Your task to perform on an android device: Turn off the flashlight Image 0: 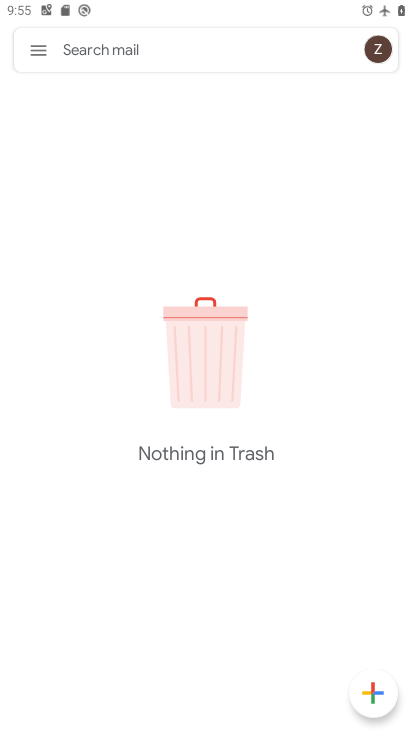
Step 0: press home button
Your task to perform on an android device: Turn off the flashlight Image 1: 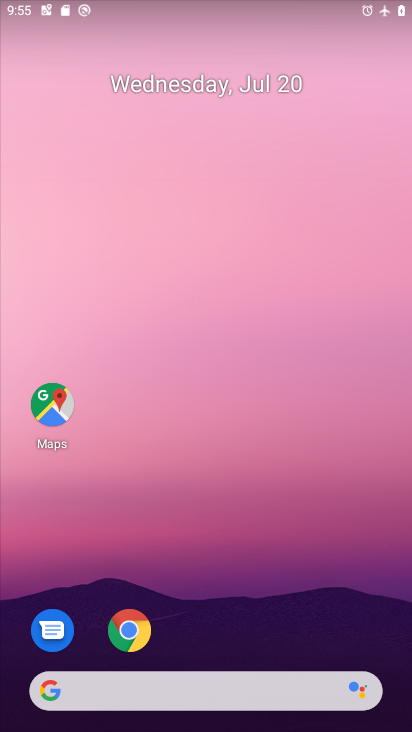
Step 1: task complete